Your task to perform on an android device: create a new album in the google photos Image 0: 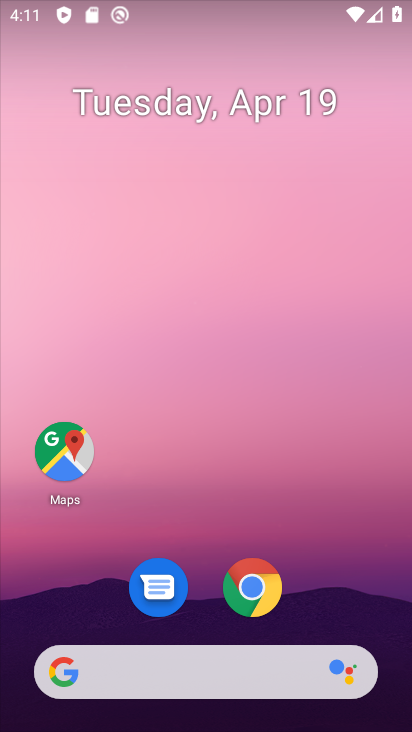
Step 0: drag from (324, 587) to (245, 30)
Your task to perform on an android device: create a new album in the google photos Image 1: 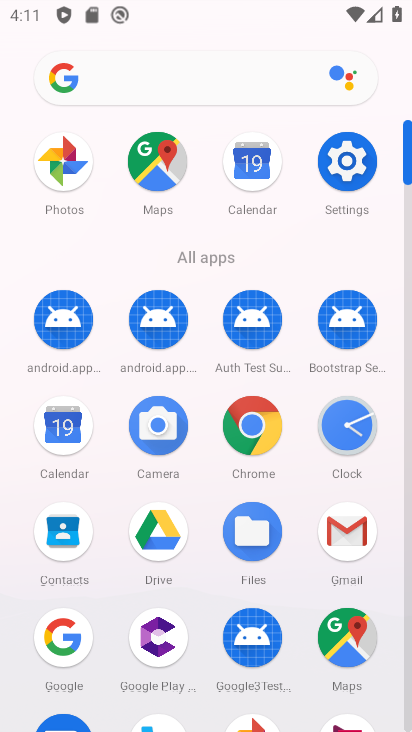
Step 1: drag from (15, 616) to (12, 270)
Your task to perform on an android device: create a new album in the google photos Image 2: 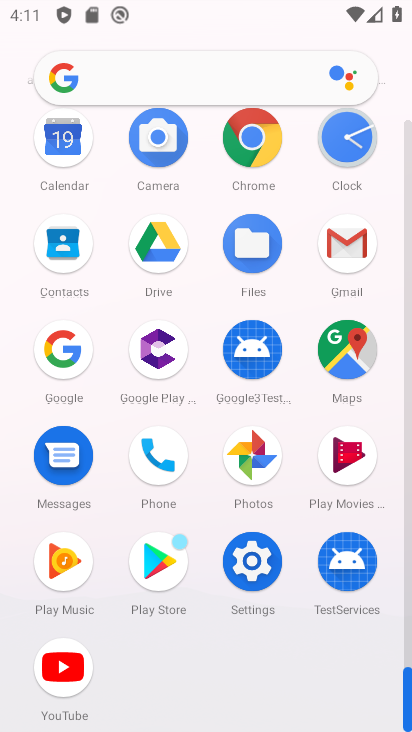
Step 2: click (251, 450)
Your task to perform on an android device: create a new album in the google photos Image 3: 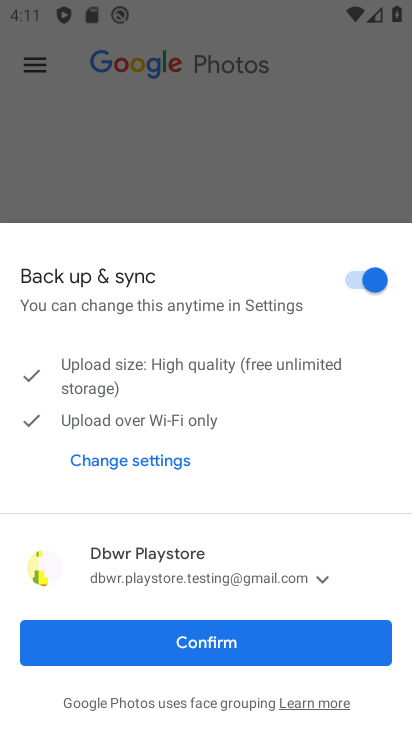
Step 3: click (205, 645)
Your task to perform on an android device: create a new album in the google photos Image 4: 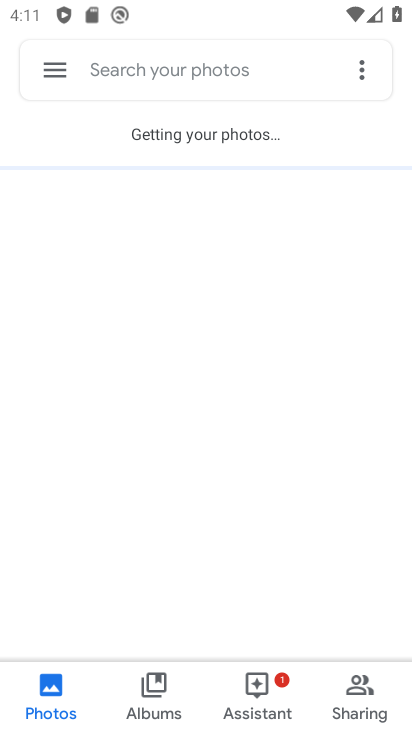
Step 4: click (167, 678)
Your task to perform on an android device: create a new album in the google photos Image 5: 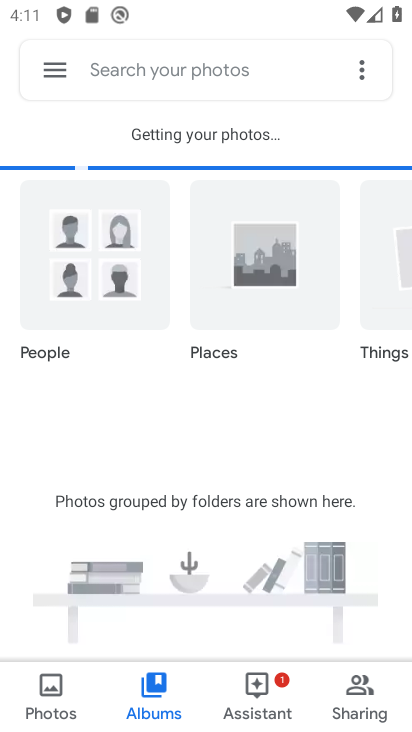
Step 5: click (40, 680)
Your task to perform on an android device: create a new album in the google photos Image 6: 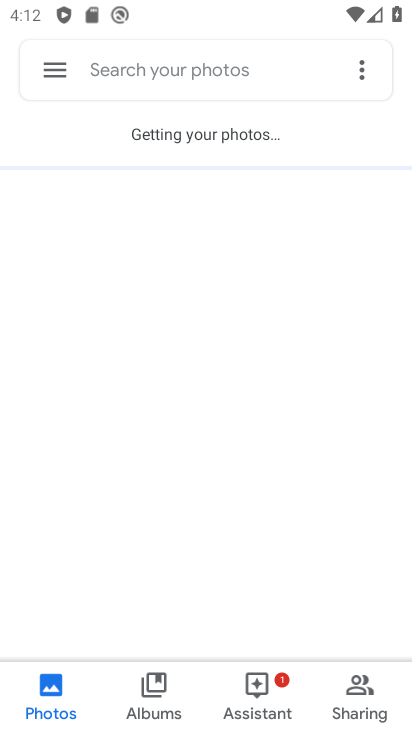
Step 6: drag from (258, 296) to (250, 566)
Your task to perform on an android device: create a new album in the google photos Image 7: 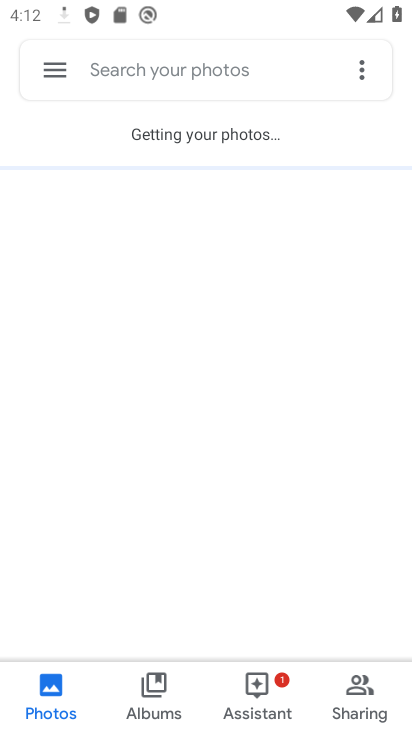
Step 7: drag from (279, 210) to (284, 436)
Your task to perform on an android device: create a new album in the google photos Image 8: 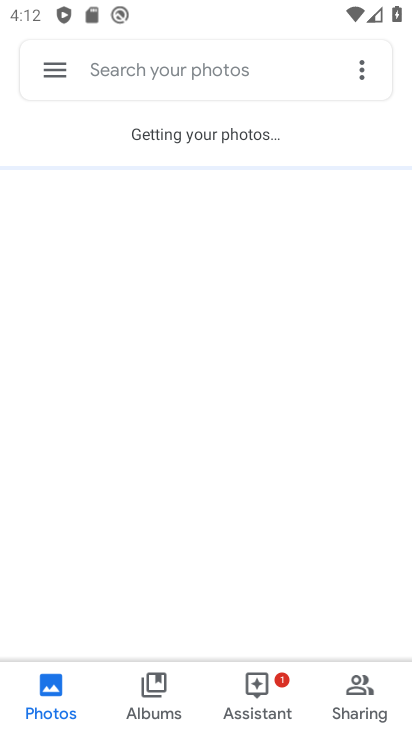
Step 8: click (67, 680)
Your task to perform on an android device: create a new album in the google photos Image 9: 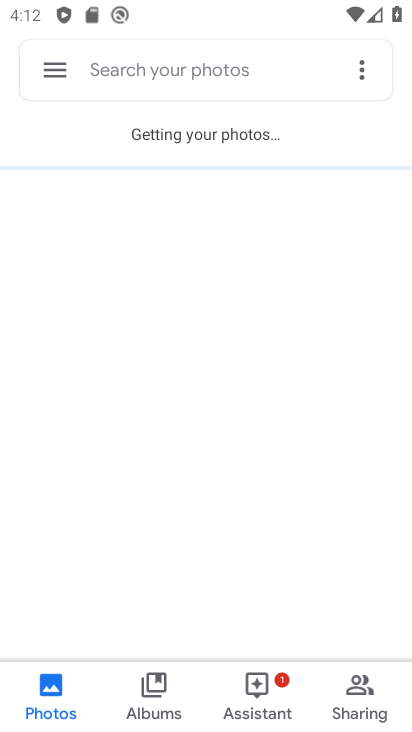
Step 9: click (159, 677)
Your task to perform on an android device: create a new album in the google photos Image 10: 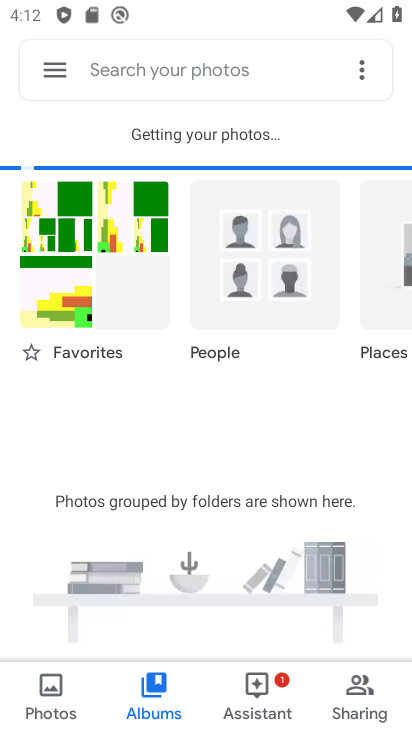
Step 10: click (78, 676)
Your task to perform on an android device: create a new album in the google photos Image 11: 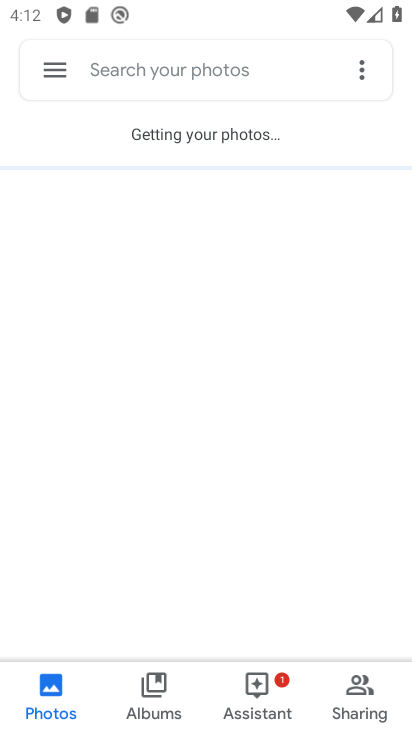
Step 11: task complete